Your task to perform on an android device: Go to display settings Image 0: 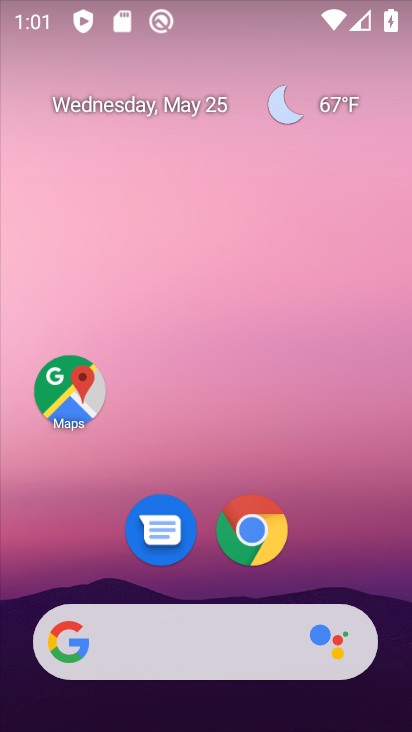
Step 0: drag from (336, 563) to (268, 162)
Your task to perform on an android device: Go to display settings Image 1: 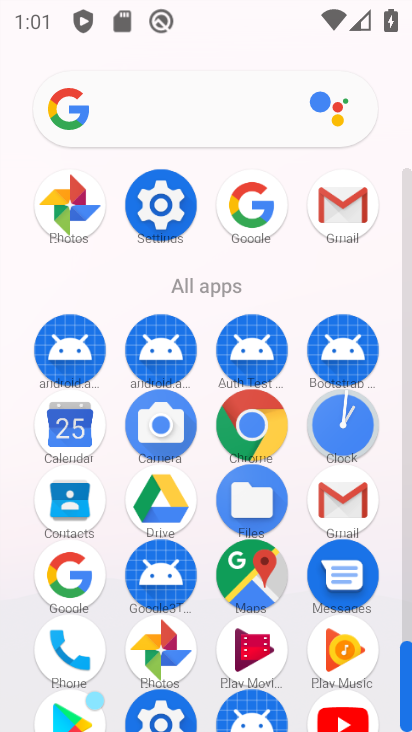
Step 1: click (161, 207)
Your task to perform on an android device: Go to display settings Image 2: 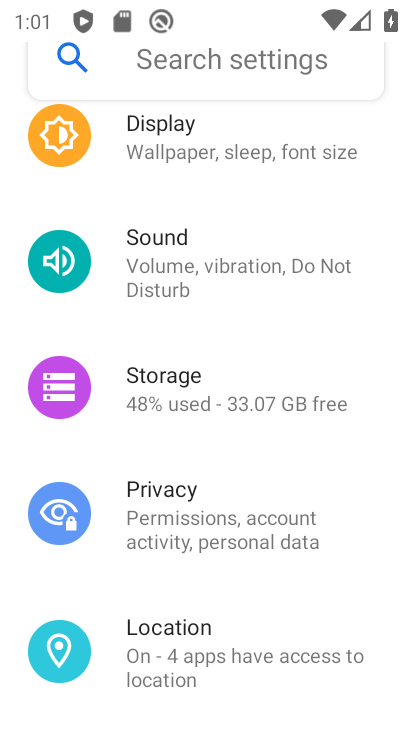
Step 2: click (192, 155)
Your task to perform on an android device: Go to display settings Image 3: 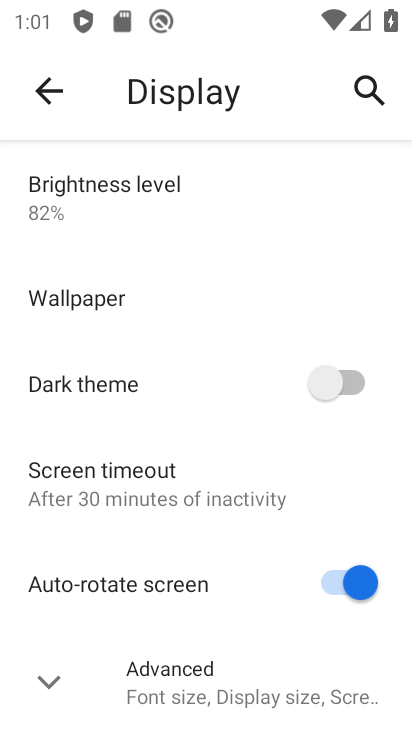
Step 3: task complete